Your task to perform on an android device: Open the calendar app, open the side menu, and click the "Day" option Image 0: 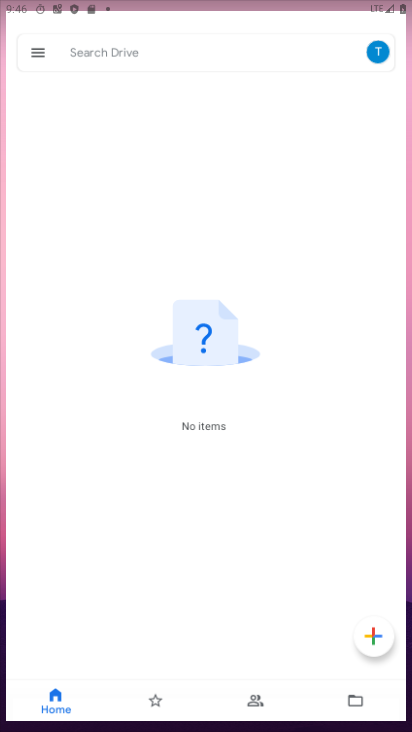
Step 0: drag from (159, 676) to (149, 104)
Your task to perform on an android device: Open the calendar app, open the side menu, and click the "Day" option Image 1: 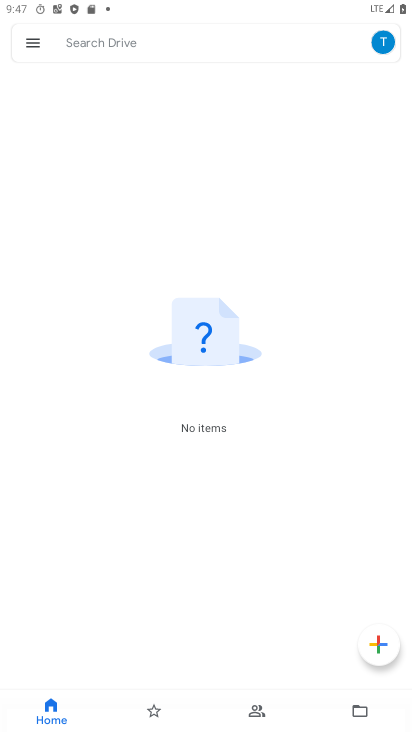
Step 1: press home button
Your task to perform on an android device: Open the calendar app, open the side menu, and click the "Day" option Image 2: 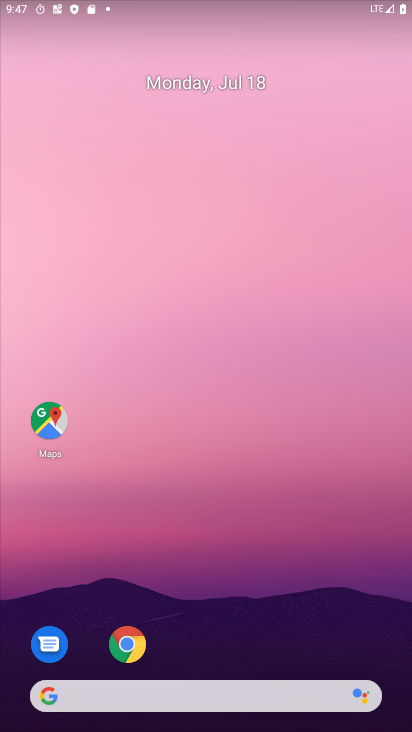
Step 2: drag from (163, 664) to (245, 16)
Your task to perform on an android device: Open the calendar app, open the side menu, and click the "Day" option Image 3: 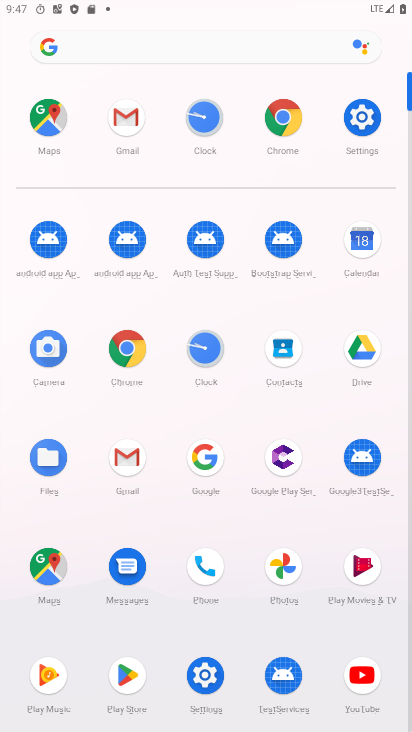
Step 3: click (367, 240)
Your task to perform on an android device: Open the calendar app, open the side menu, and click the "Day" option Image 4: 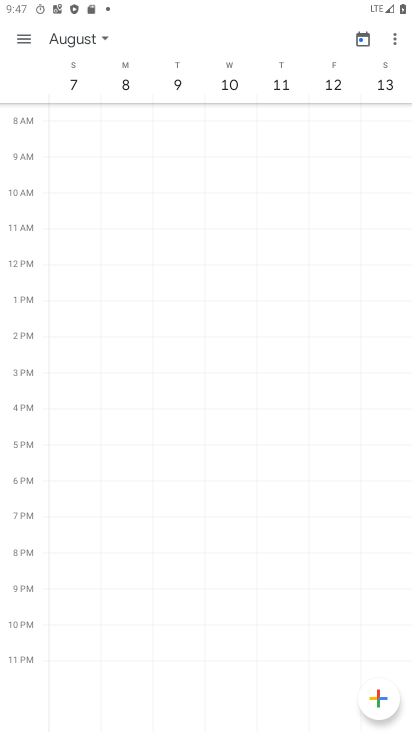
Step 4: click (22, 41)
Your task to perform on an android device: Open the calendar app, open the side menu, and click the "Day" option Image 5: 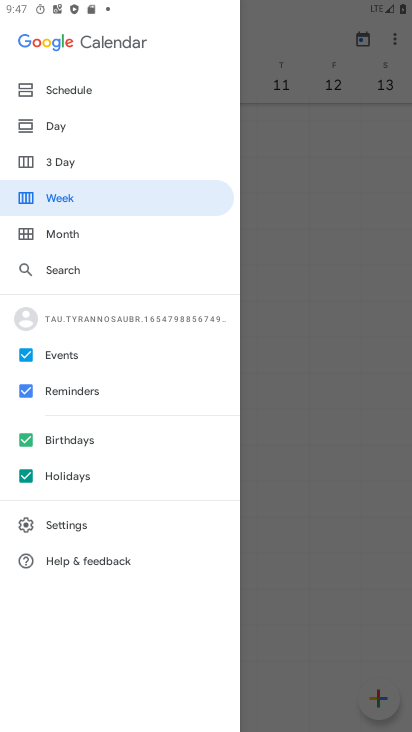
Step 5: click (59, 130)
Your task to perform on an android device: Open the calendar app, open the side menu, and click the "Day" option Image 6: 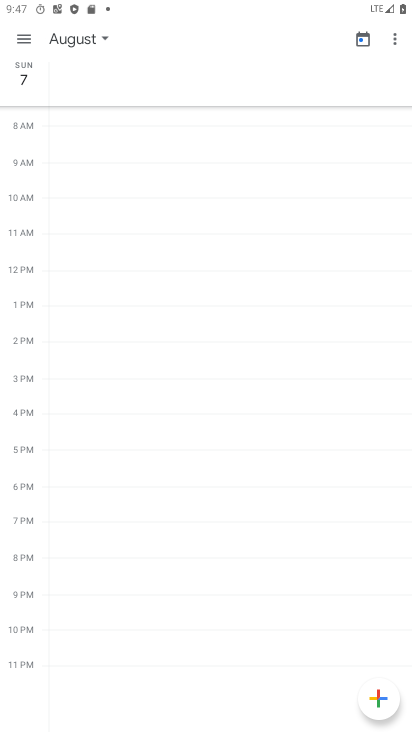
Step 6: task complete